Your task to perform on an android device: turn vacation reply on in the gmail app Image 0: 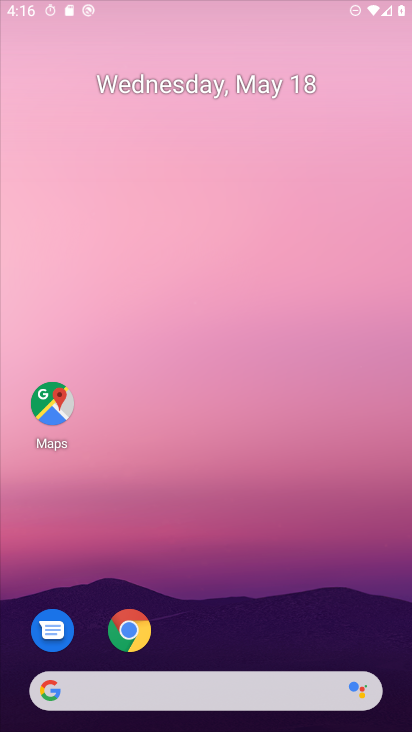
Step 0: press home button
Your task to perform on an android device: turn vacation reply on in the gmail app Image 1: 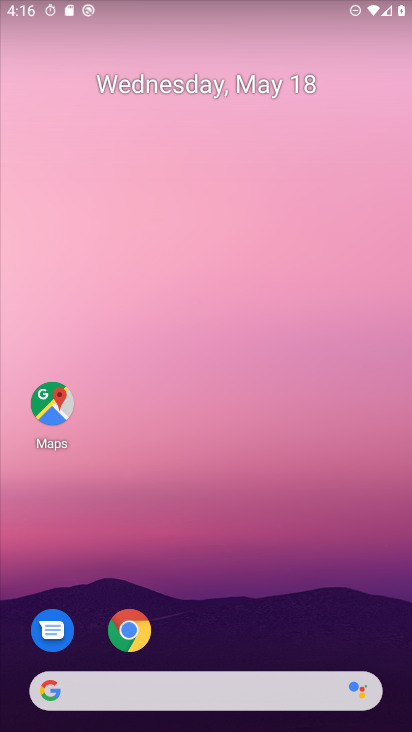
Step 1: press home button
Your task to perform on an android device: turn vacation reply on in the gmail app Image 2: 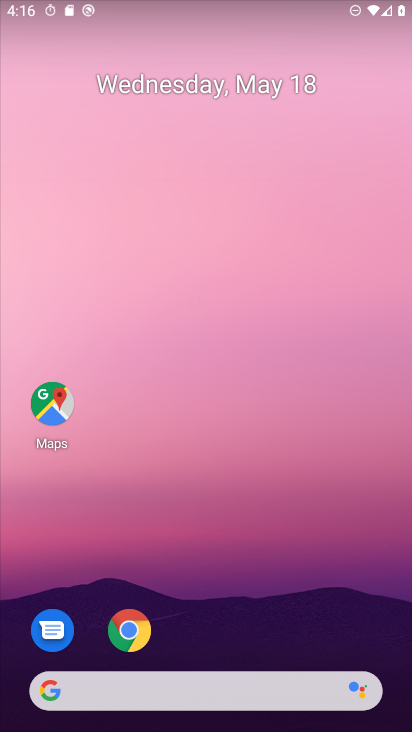
Step 2: drag from (208, 657) to (265, 62)
Your task to perform on an android device: turn vacation reply on in the gmail app Image 3: 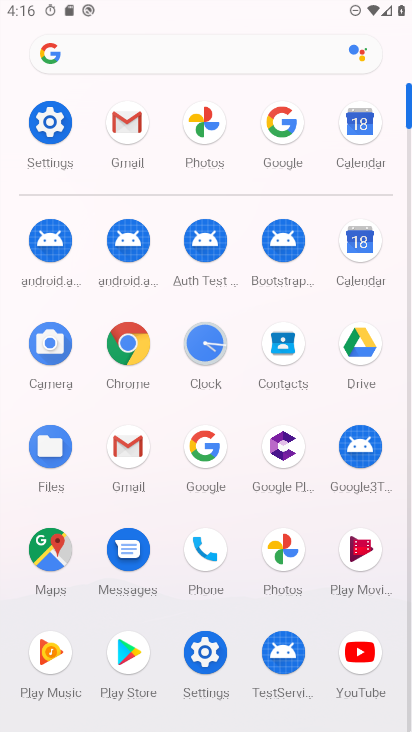
Step 3: click (122, 113)
Your task to perform on an android device: turn vacation reply on in the gmail app Image 4: 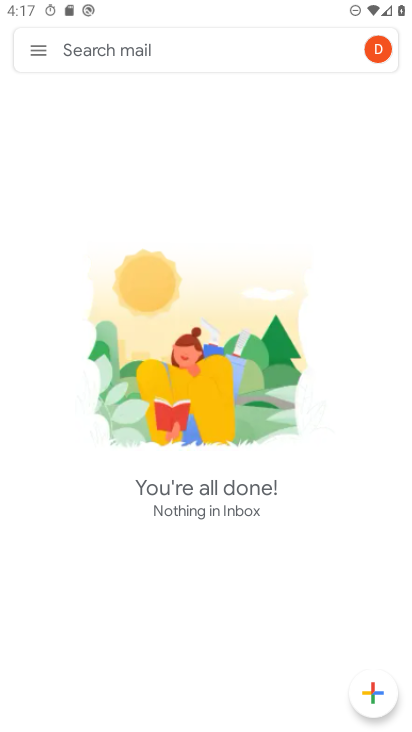
Step 4: click (41, 48)
Your task to perform on an android device: turn vacation reply on in the gmail app Image 5: 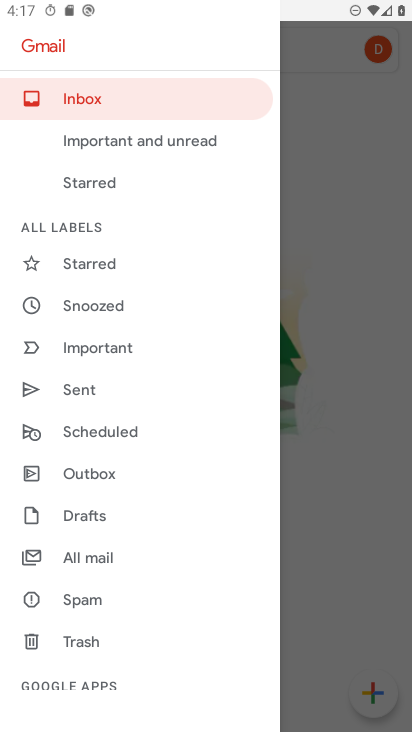
Step 5: drag from (144, 602) to (154, 202)
Your task to perform on an android device: turn vacation reply on in the gmail app Image 6: 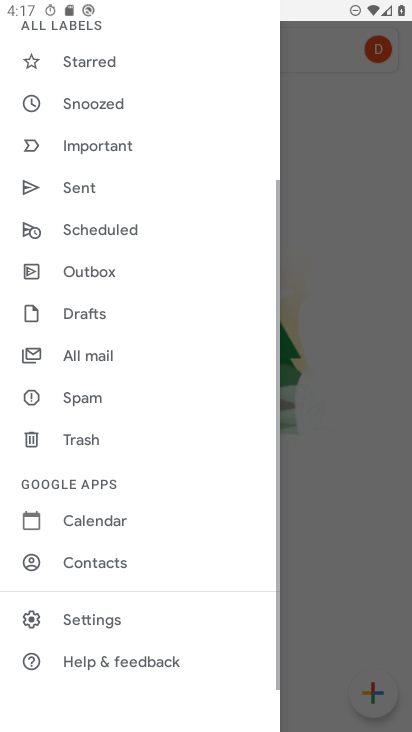
Step 6: click (158, 139)
Your task to perform on an android device: turn vacation reply on in the gmail app Image 7: 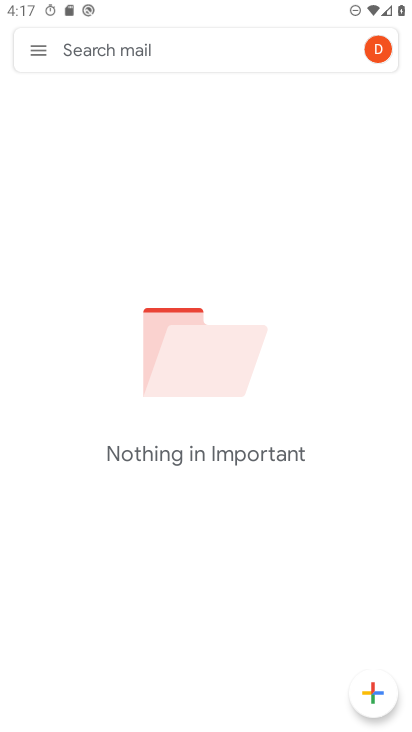
Step 7: click (59, 618)
Your task to perform on an android device: turn vacation reply on in the gmail app Image 8: 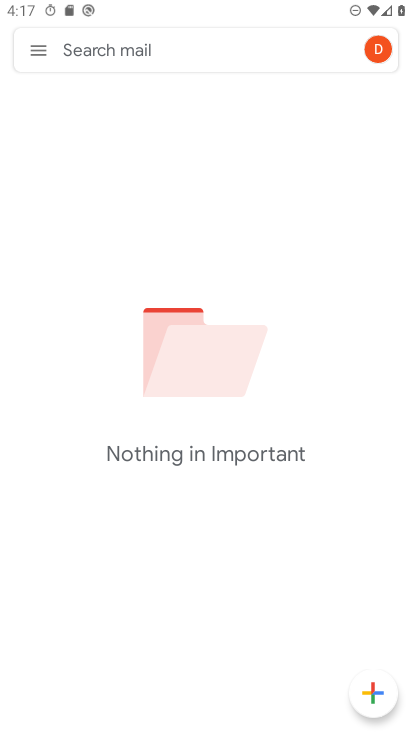
Step 8: click (33, 42)
Your task to perform on an android device: turn vacation reply on in the gmail app Image 9: 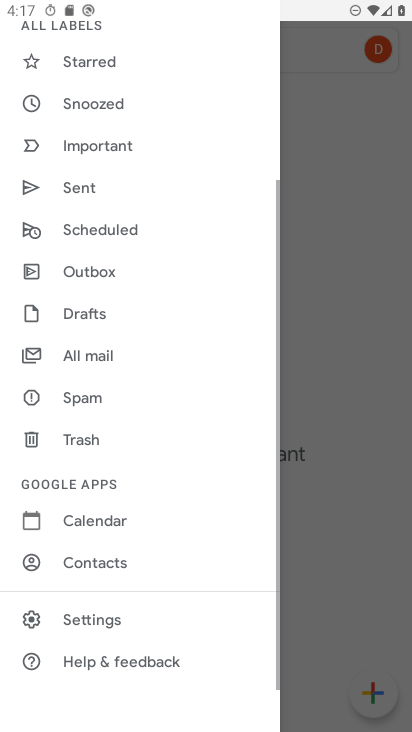
Step 9: click (95, 618)
Your task to perform on an android device: turn vacation reply on in the gmail app Image 10: 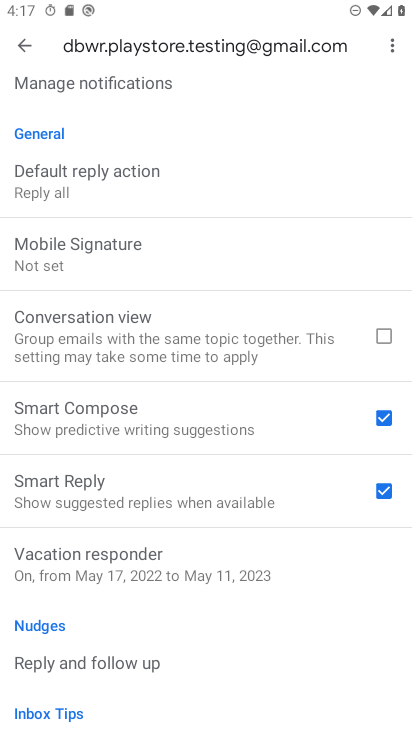
Step 10: click (160, 570)
Your task to perform on an android device: turn vacation reply on in the gmail app Image 11: 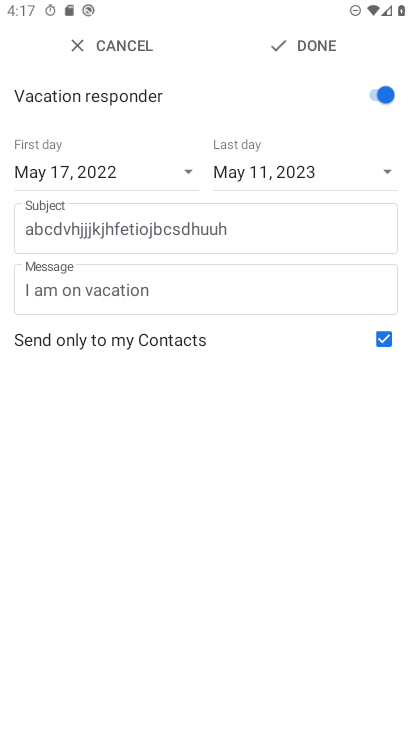
Step 11: task complete